Your task to perform on an android device: move a message to another label in the gmail app Image 0: 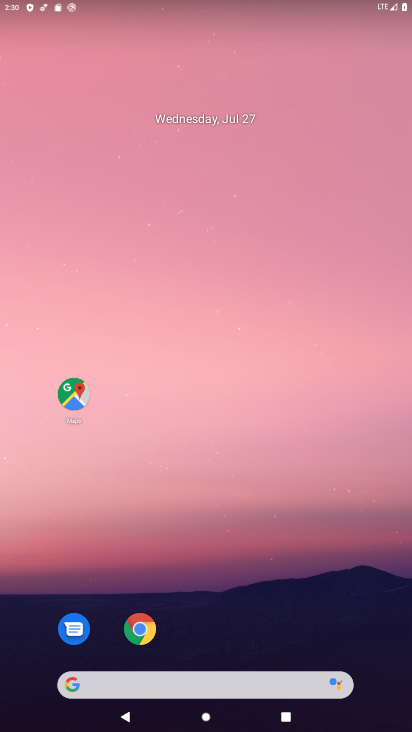
Step 0: drag from (187, 658) to (204, 147)
Your task to perform on an android device: move a message to another label in the gmail app Image 1: 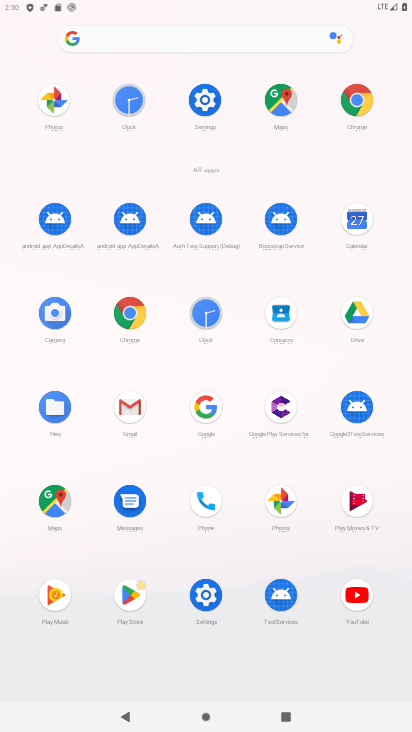
Step 1: click (127, 408)
Your task to perform on an android device: move a message to another label in the gmail app Image 2: 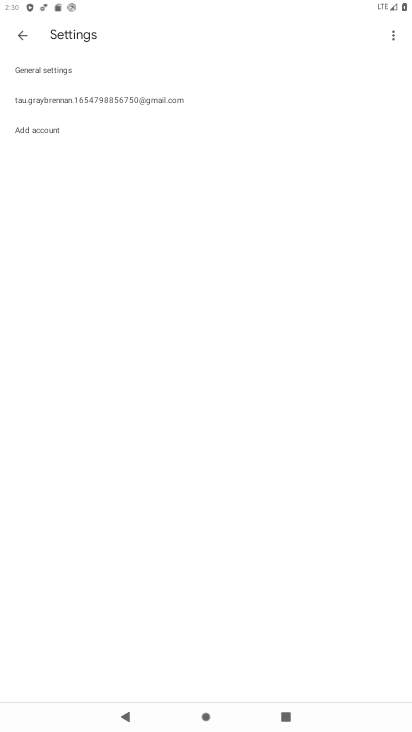
Step 2: click (21, 36)
Your task to perform on an android device: move a message to another label in the gmail app Image 3: 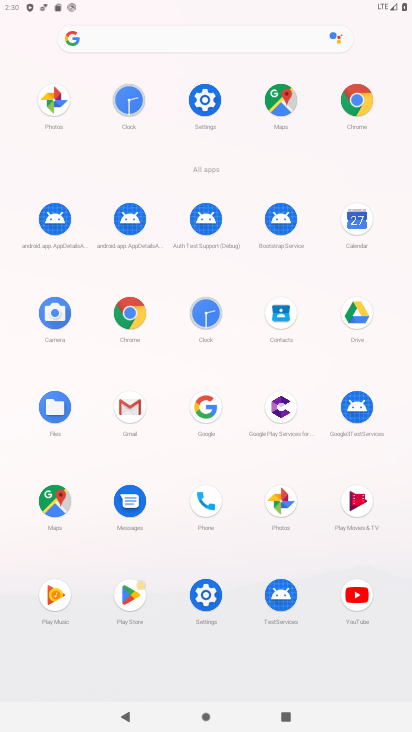
Step 3: click (125, 406)
Your task to perform on an android device: move a message to another label in the gmail app Image 4: 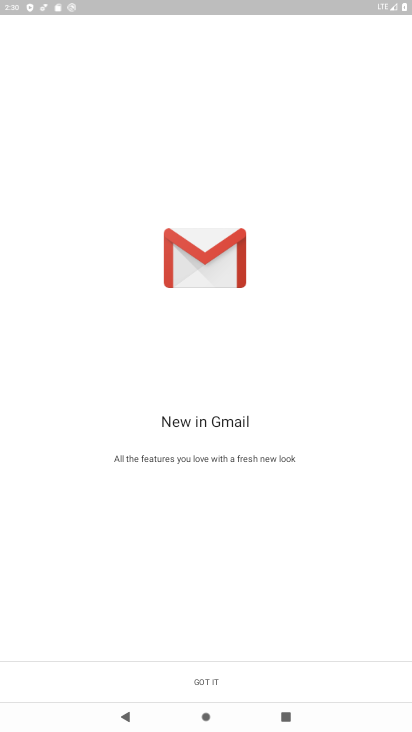
Step 4: click (243, 673)
Your task to perform on an android device: move a message to another label in the gmail app Image 5: 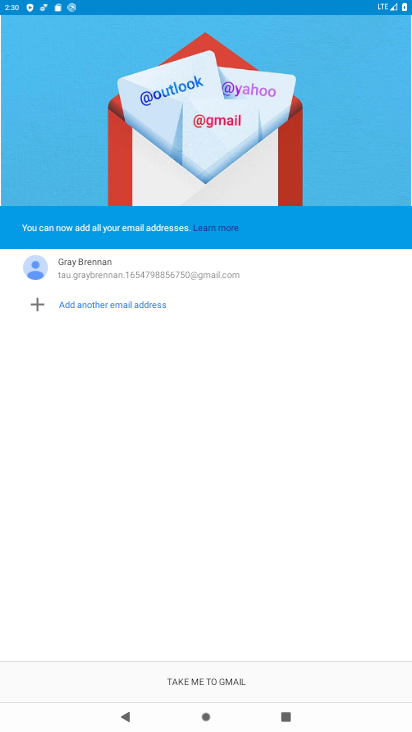
Step 5: click (243, 673)
Your task to perform on an android device: move a message to another label in the gmail app Image 6: 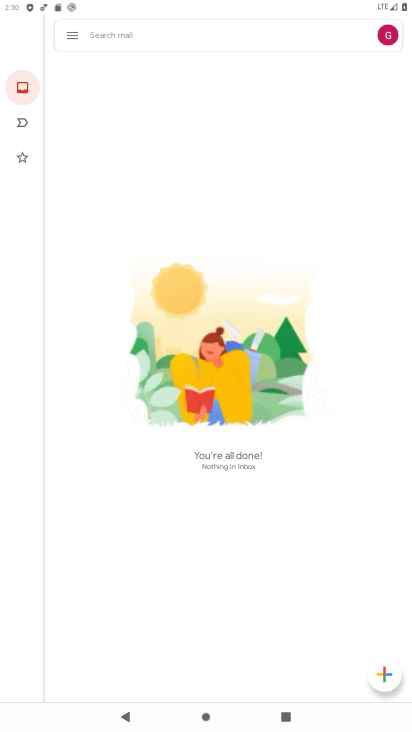
Step 6: task complete